Your task to perform on an android device: What's the weather going to be this weekend? Image 0: 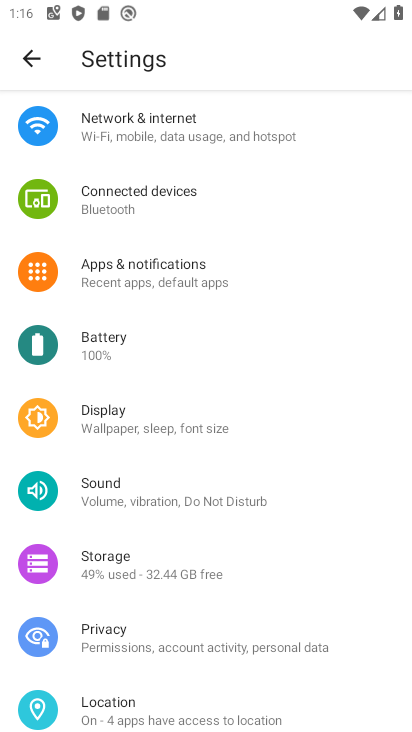
Step 0: press home button
Your task to perform on an android device: What's the weather going to be this weekend? Image 1: 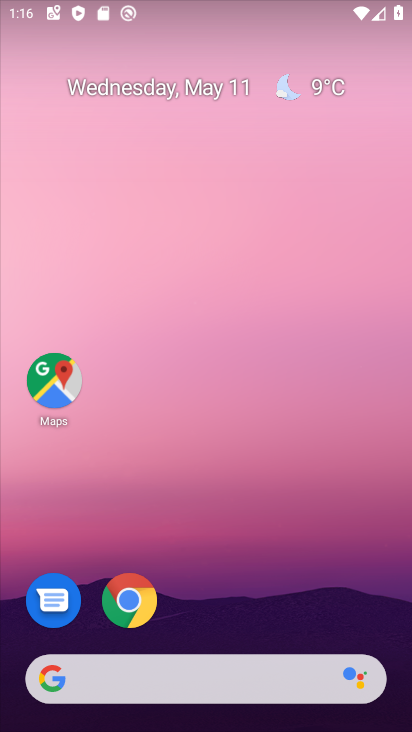
Step 1: click (244, 677)
Your task to perform on an android device: What's the weather going to be this weekend? Image 2: 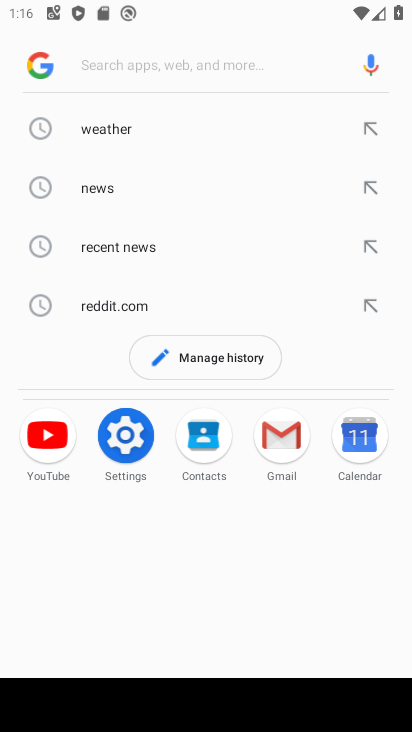
Step 2: type "What's the weather going to be this weekend?"
Your task to perform on an android device: What's the weather going to be this weekend? Image 3: 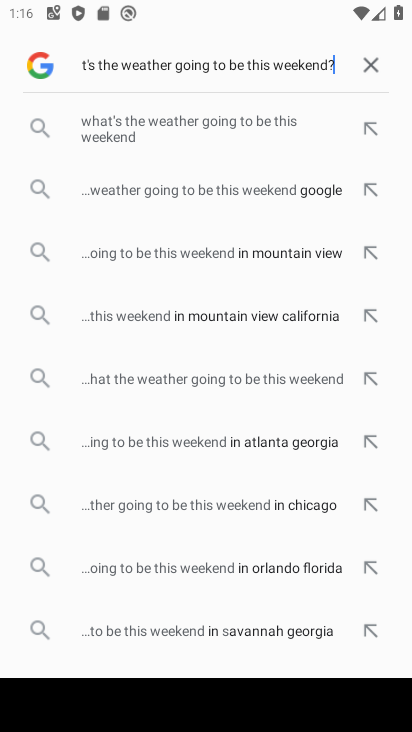
Step 3: click (254, 135)
Your task to perform on an android device: What's the weather going to be this weekend? Image 4: 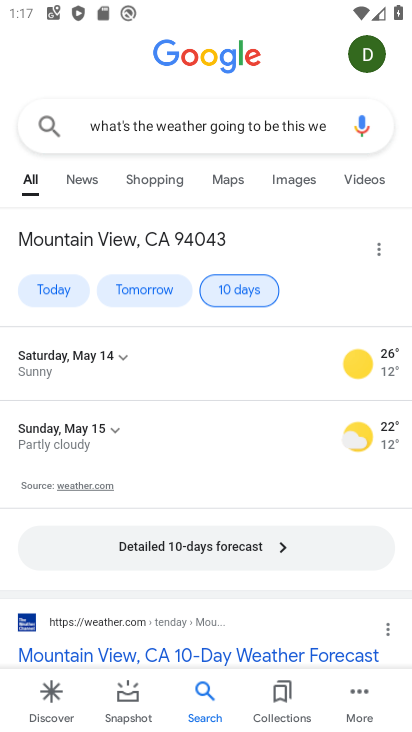
Step 4: task complete